Your task to perform on an android device: turn off improve location accuracy Image 0: 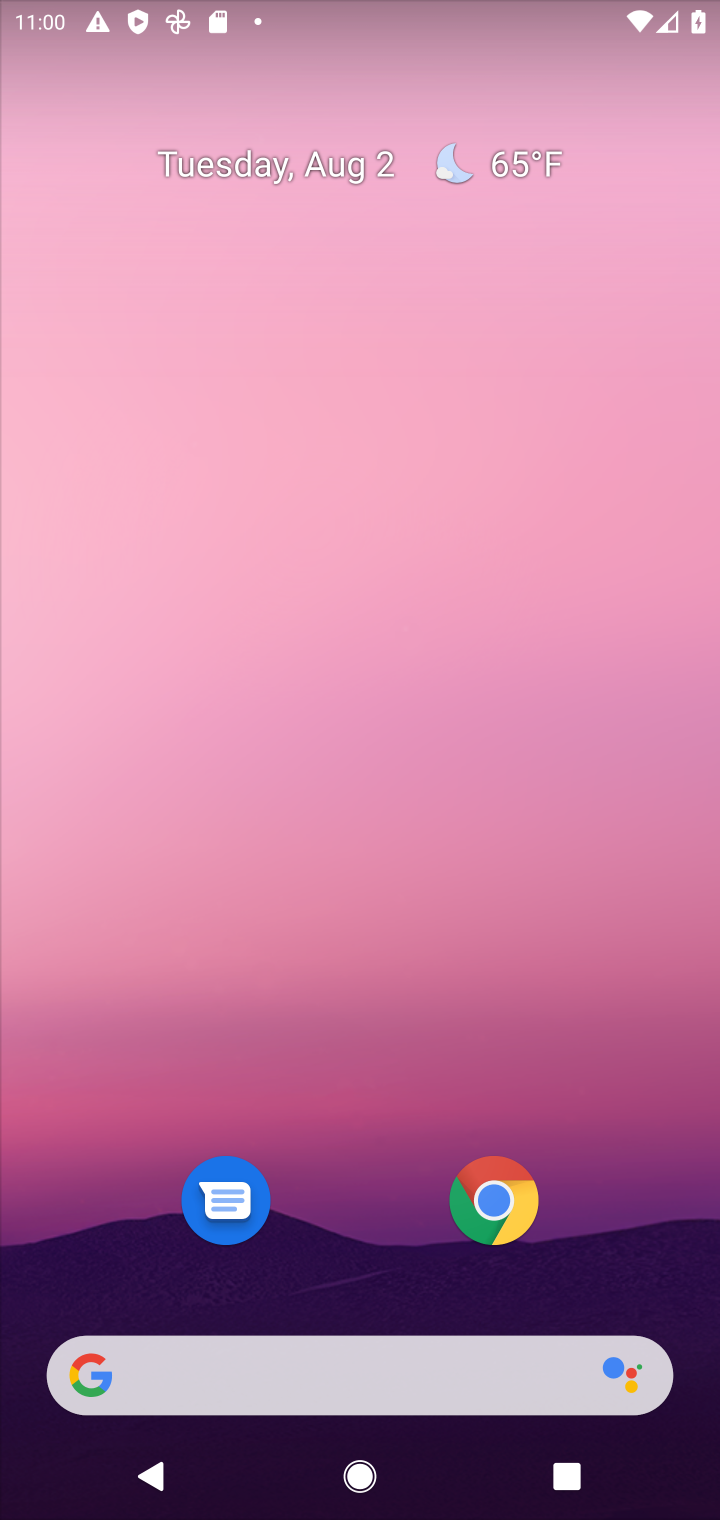
Step 0: drag from (624, 946) to (611, 206)
Your task to perform on an android device: turn off improve location accuracy Image 1: 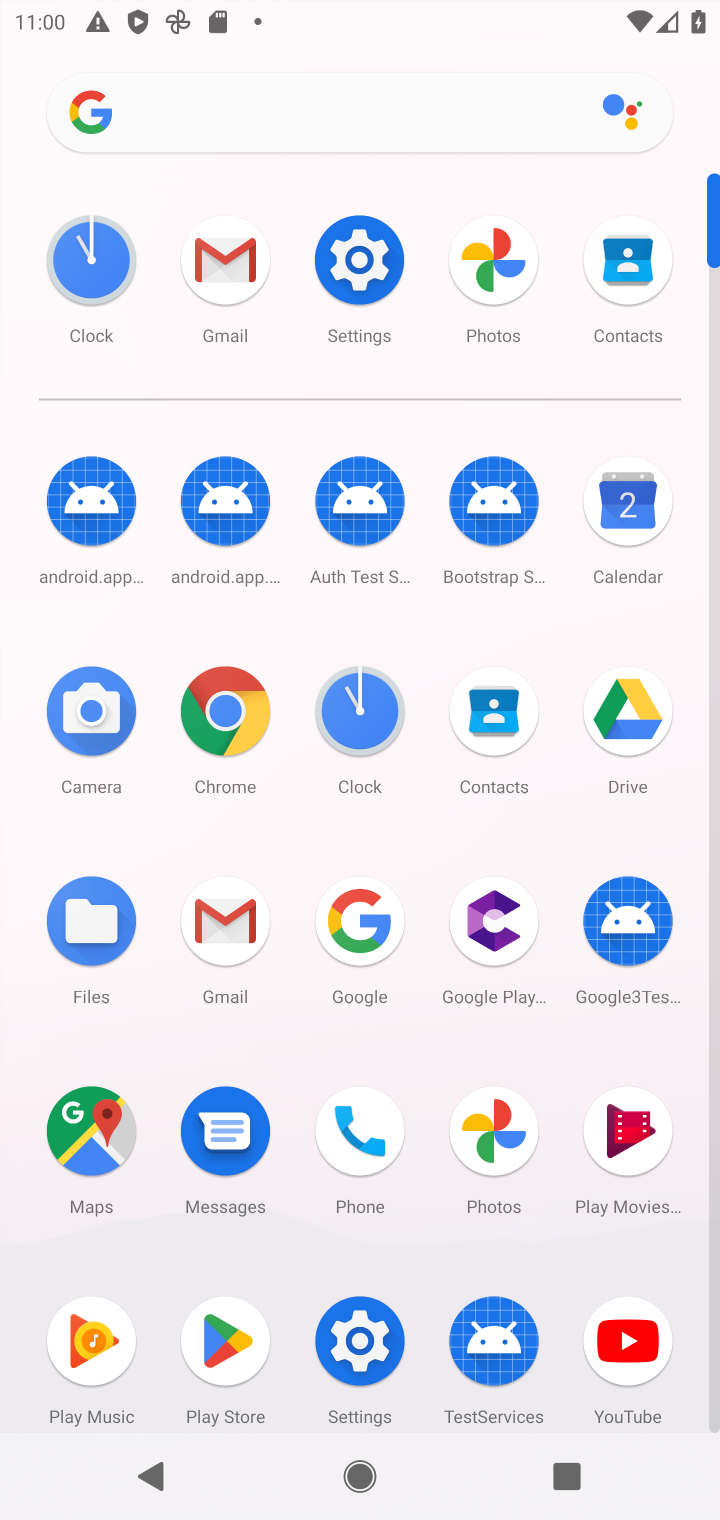
Step 1: click (354, 1346)
Your task to perform on an android device: turn off improve location accuracy Image 2: 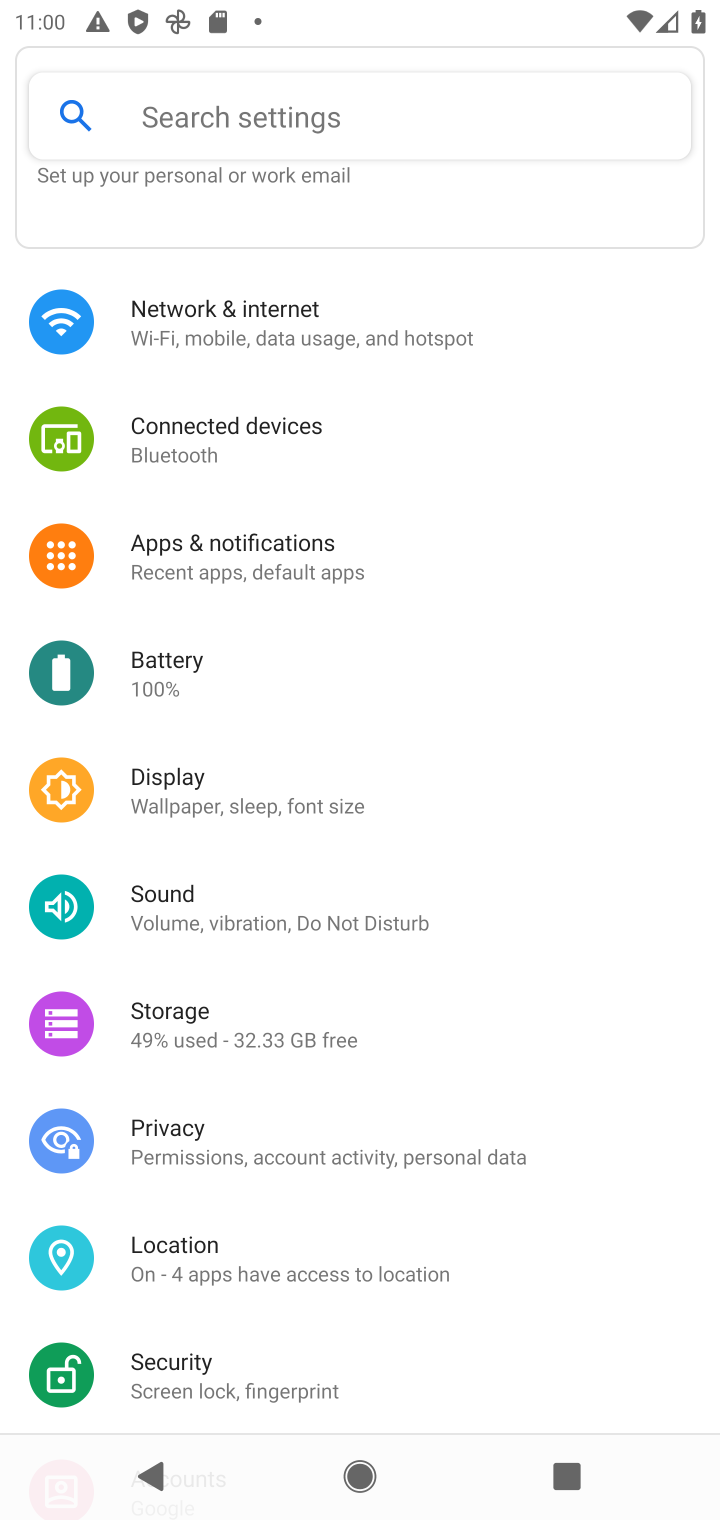
Step 2: click (185, 1253)
Your task to perform on an android device: turn off improve location accuracy Image 3: 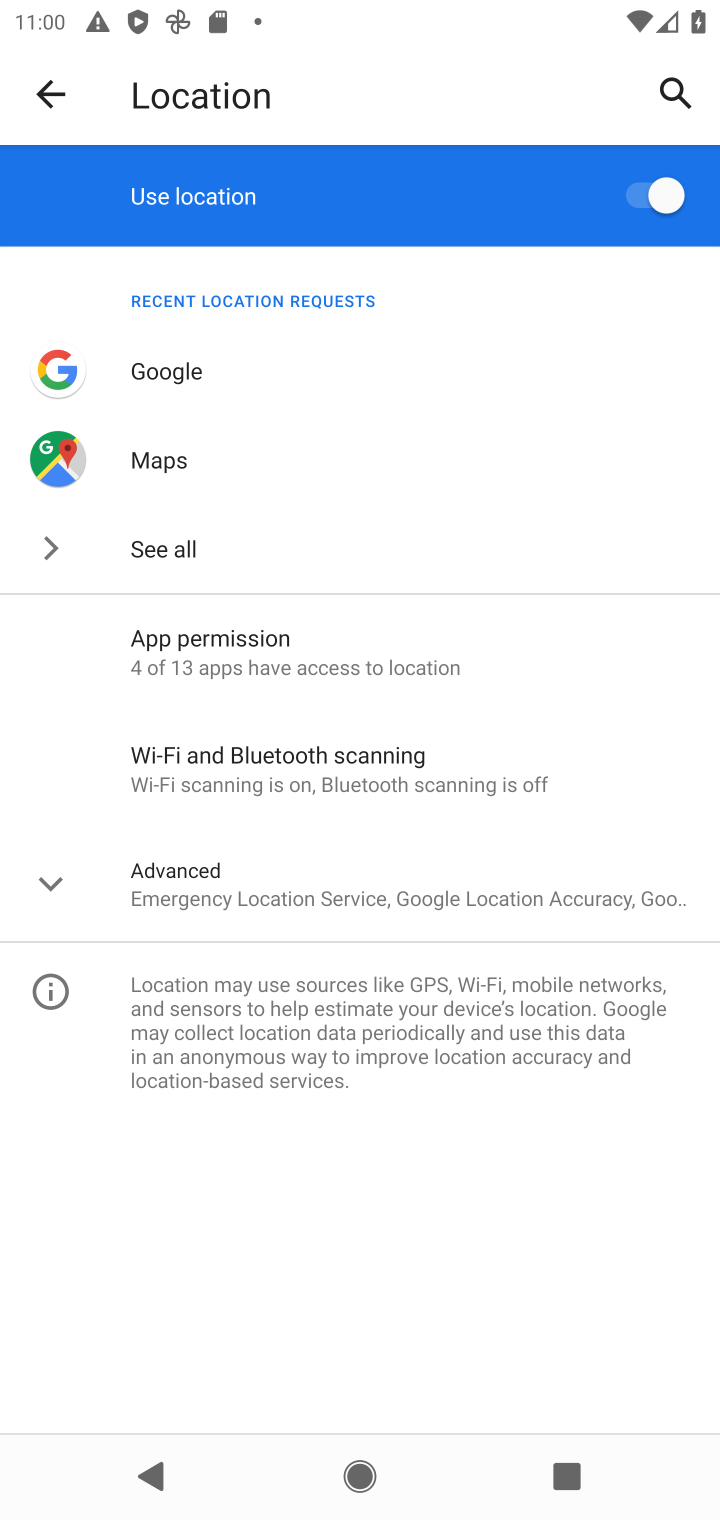
Step 3: click (53, 891)
Your task to perform on an android device: turn off improve location accuracy Image 4: 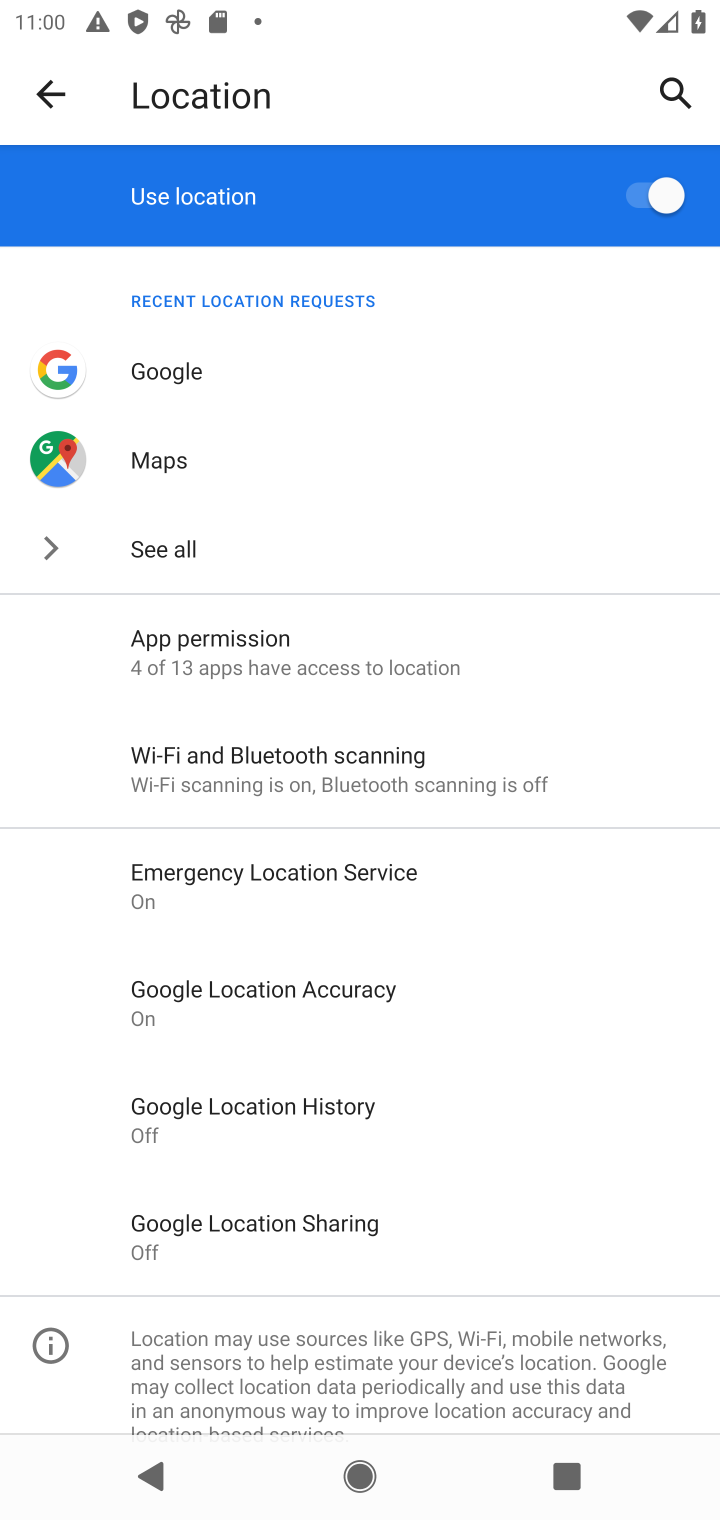
Step 4: click (264, 990)
Your task to perform on an android device: turn off improve location accuracy Image 5: 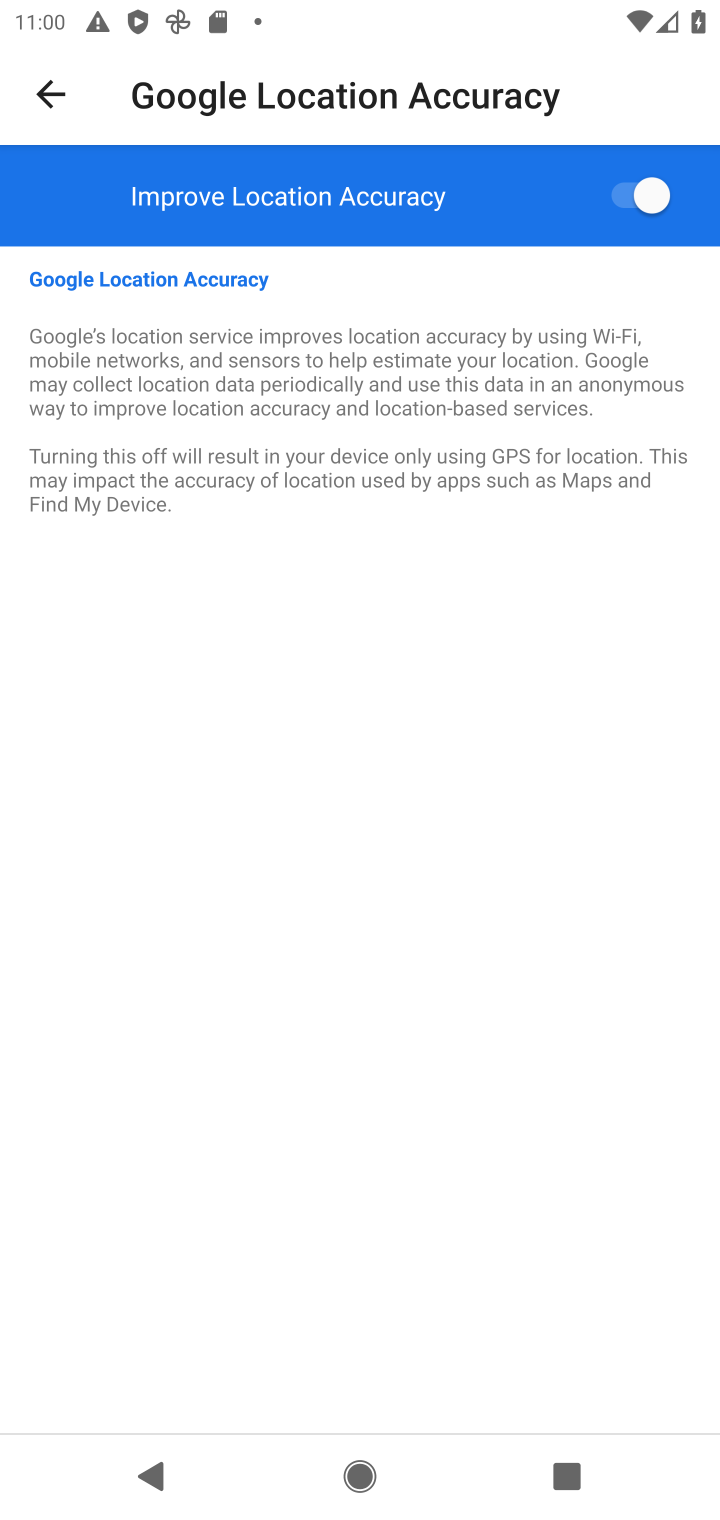
Step 5: click (616, 190)
Your task to perform on an android device: turn off improve location accuracy Image 6: 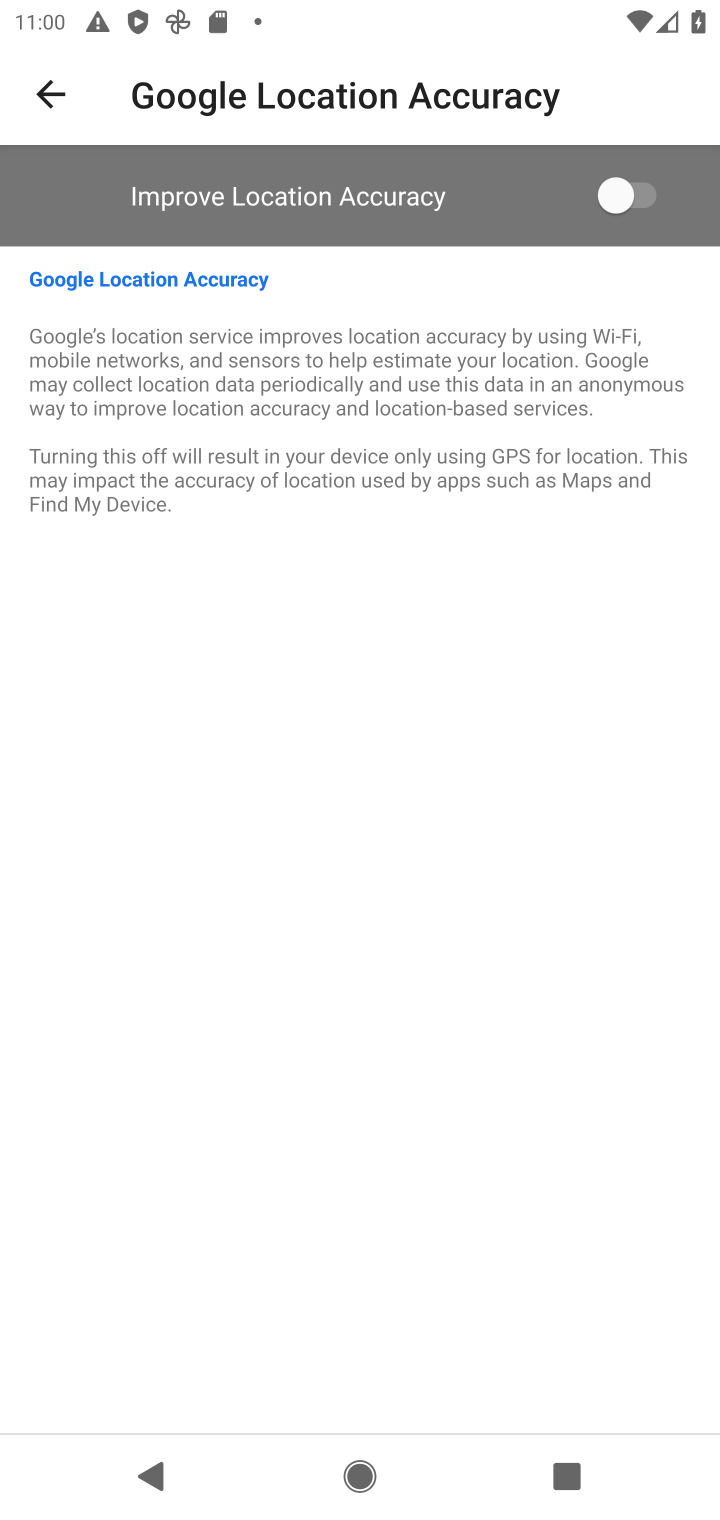
Step 6: task complete